Your task to perform on an android device: Open privacy settings Image 0: 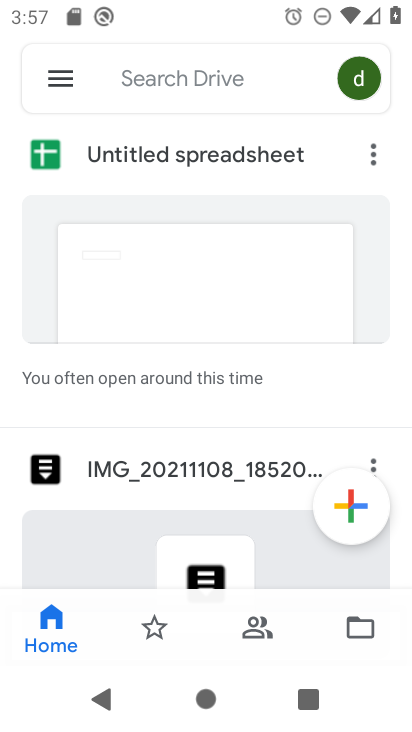
Step 0: press home button
Your task to perform on an android device: Open privacy settings Image 1: 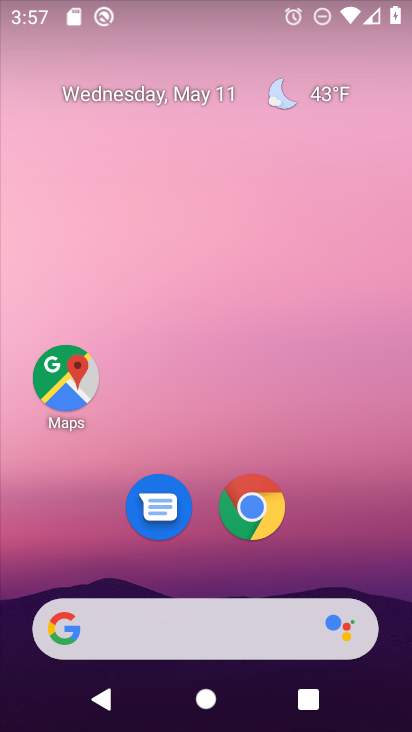
Step 1: drag from (396, 618) to (264, 78)
Your task to perform on an android device: Open privacy settings Image 2: 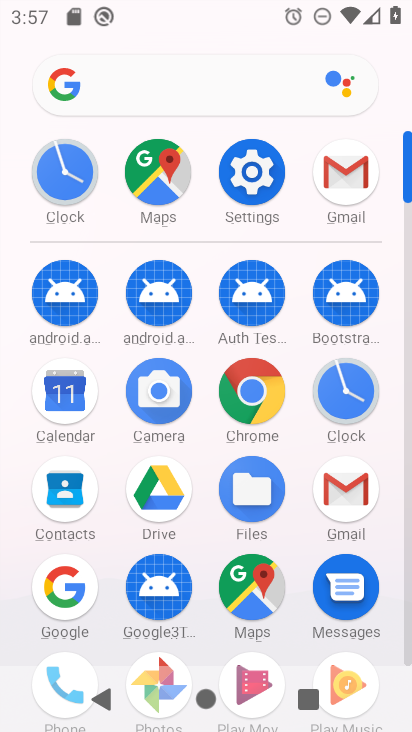
Step 2: click (408, 653)
Your task to perform on an android device: Open privacy settings Image 3: 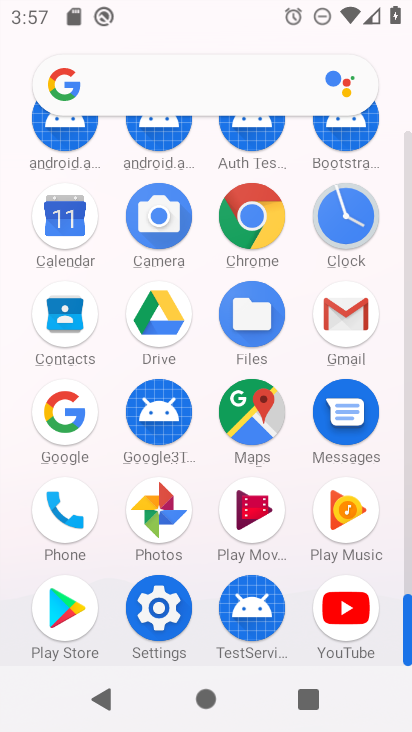
Step 3: click (160, 608)
Your task to perform on an android device: Open privacy settings Image 4: 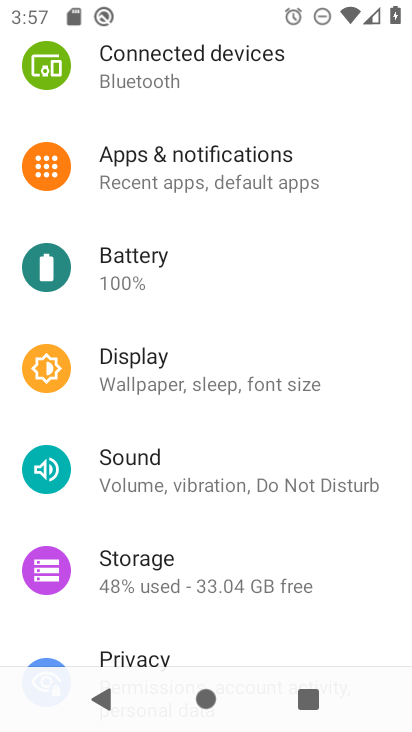
Step 4: drag from (360, 585) to (357, 211)
Your task to perform on an android device: Open privacy settings Image 5: 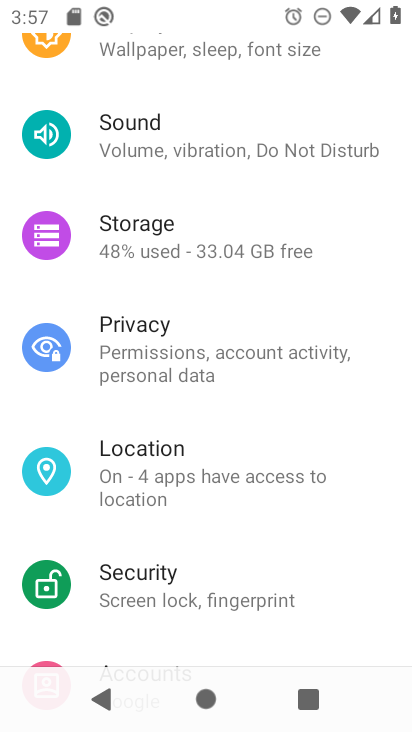
Step 5: click (134, 351)
Your task to perform on an android device: Open privacy settings Image 6: 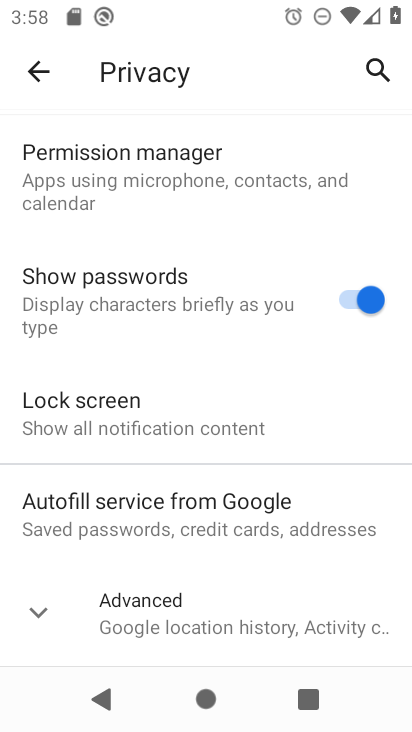
Step 6: click (37, 610)
Your task to perform on an android device: Open privacy settings Image 7: 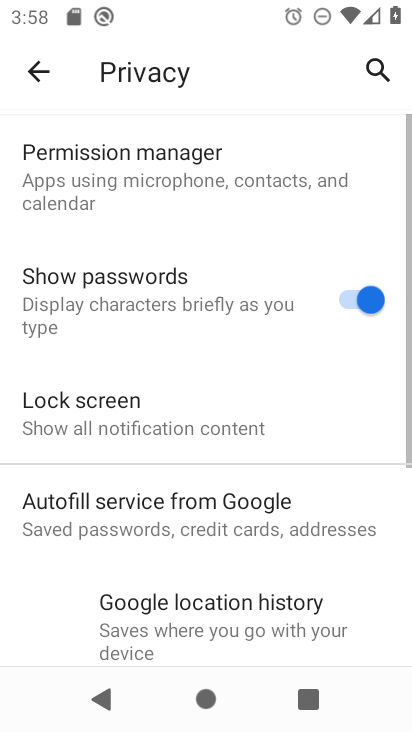
Step 7: task complete